Your task to perform on an android device: turn off priority inbox in the gmail app Image 0: 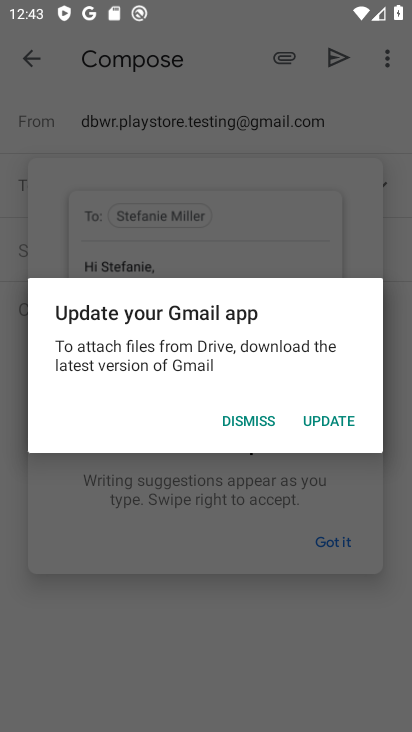
Step 0: press home button
Your task to perform on an android device: turn off priority inbox in the gmail app Image 1: 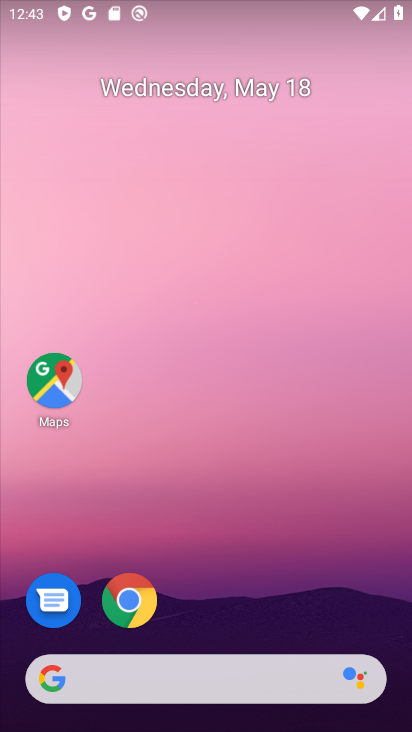
Step 1: drag from (205, 636) to (223, 226)
Your task to perform on an android device: turn off priority inbox in the gmail app Image 2: 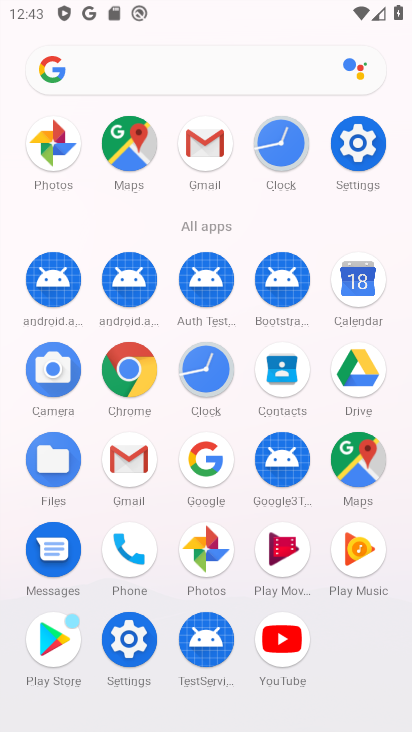
Step 2: click (122, 469)
Your task to perform on an android device: turn off priority inbox in the gmail app Image 3: 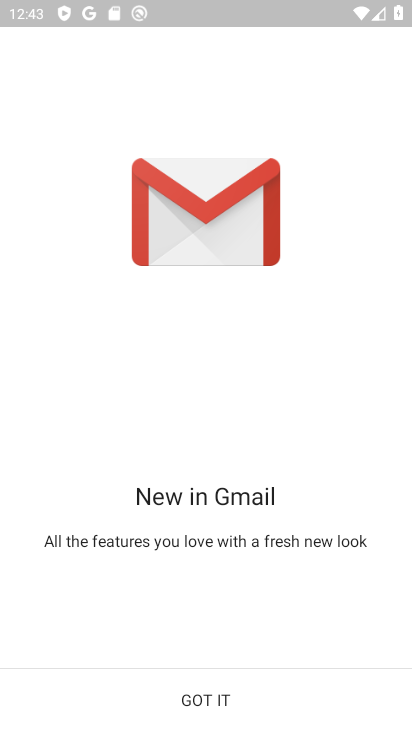
Step 3: click (198, 685)
Your task to perform on an android device: turn off priority inbox in the gmail app Image 4: 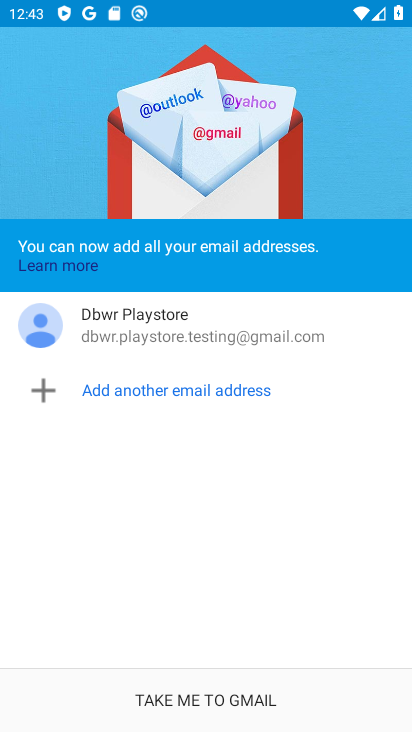
Step 4: click (213, 703)
Your task to perform on an android device: turn off priority inbox in the gmail app Image 5: 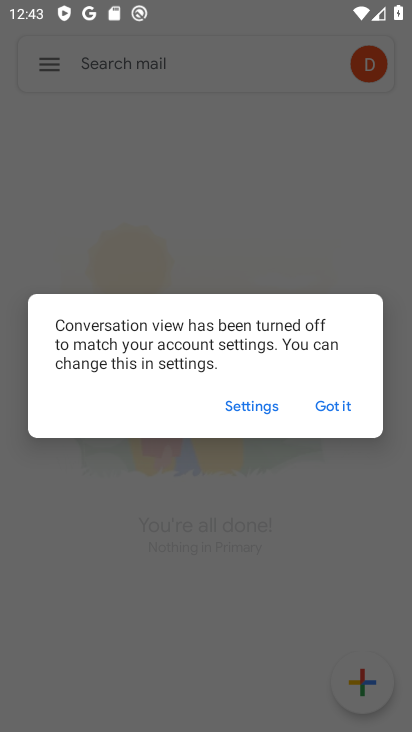
Step 5: click (318, 406)
Your task to perform on an android device: turn off priority inbox in the gmail app Image 6: 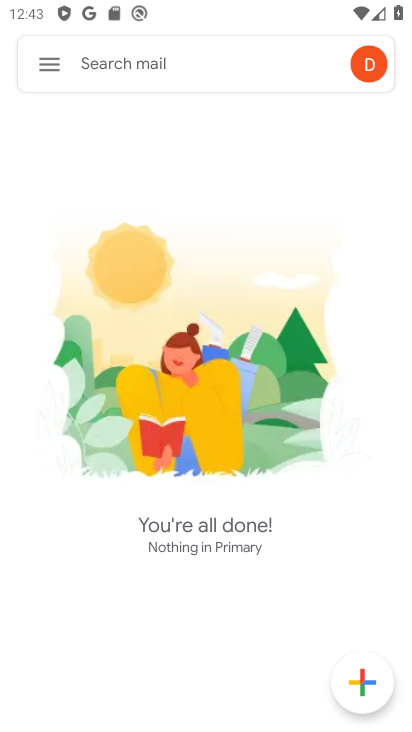
Step 6: click (55, 63)
Your task to perform on an android device: turn off priority inbox in the gmail app Image 7: 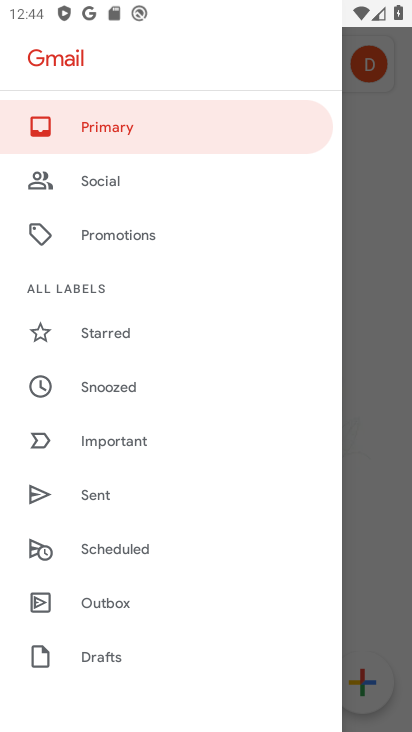
Step 7: drag from (139, 599) to (175, 146)
Your task to perform on an android device: turn off priority inbox in the gmail app Image 8: 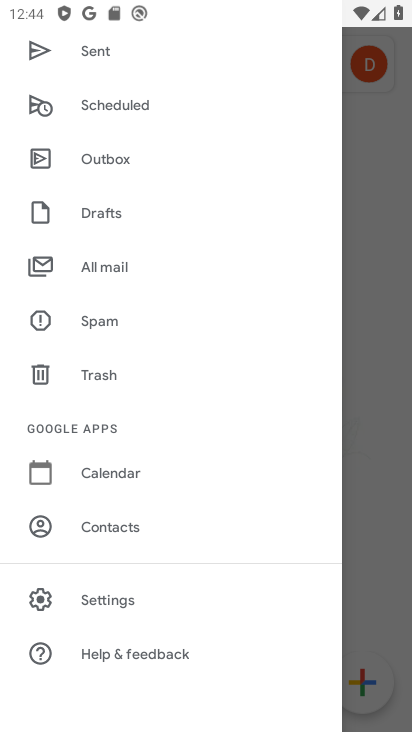
Step 8: click (128, 599)
Your task to perform on an android device: turn off priority inbox in the gmail app Image 9: 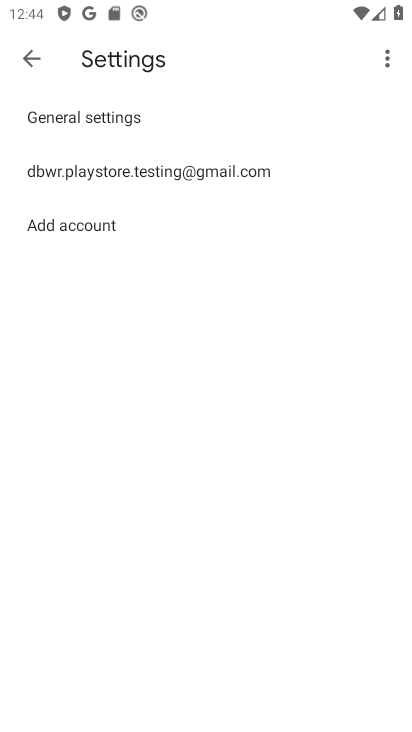
Step 9: click (176, 179)
Your task to perform on an android device: turn off priority inbox in the gmail app Image 10: 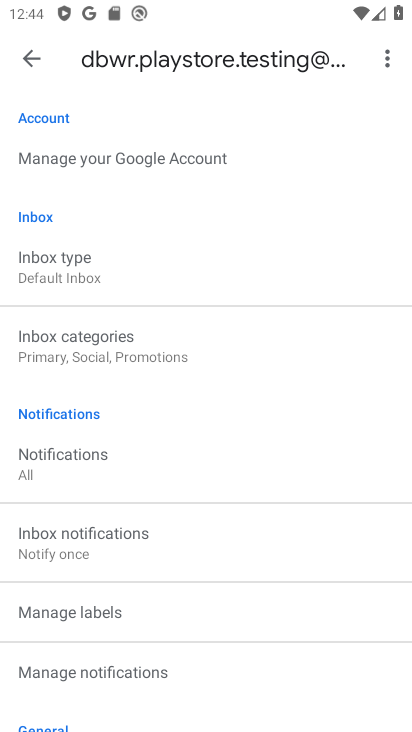
Step 10: click (95, 268)
Your task to perform on an android device: turn off priority inbox in the gmail app Image 11: 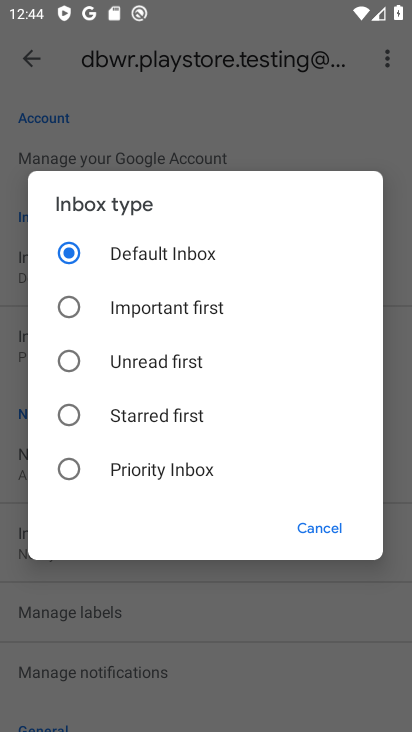
Step 11: click (134, 459)
Your task to perform on an android device: turn off priority inbox in the gmail app Image 12: 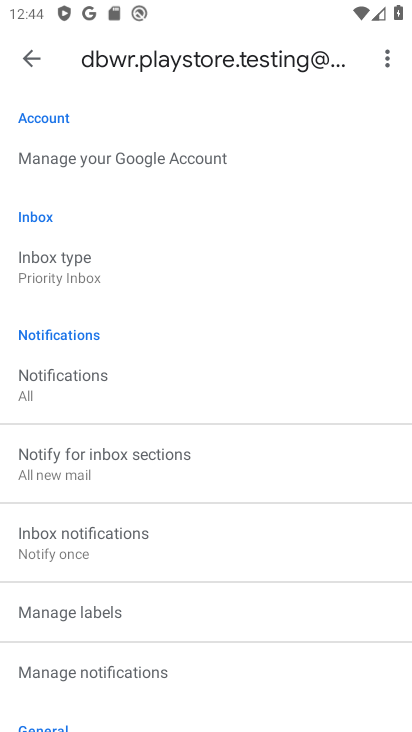
Step 12: task complete